Your task to perform on an android device: Empty the shopping cart on ebay. Search for "macbook pro 15 inch" on ebay, select the first entry, and add it to the cart. Image 0: 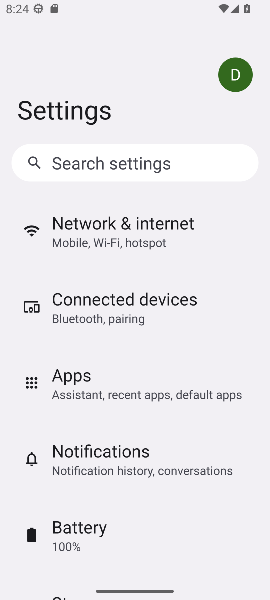
Step 0: press home button
Your task to perform on an android device: Empty the shopping cart on ebay. Search for "macbook pro 15 inch" on ebay, select the first entry, and add it to the cart. Image 1: 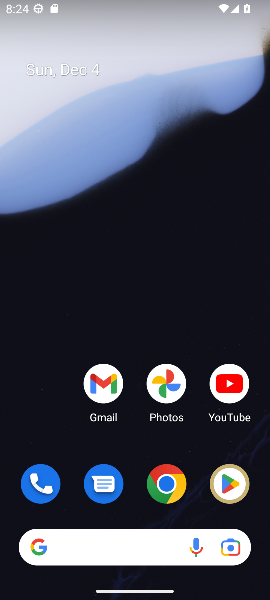
Step 1: click (169, 489)
Your task to perform on an android device: Empty the shopping cart on ebay. Search for "macbook pro 15 inch" on ebay, select the first entry, and add it to the cart. Image 2: 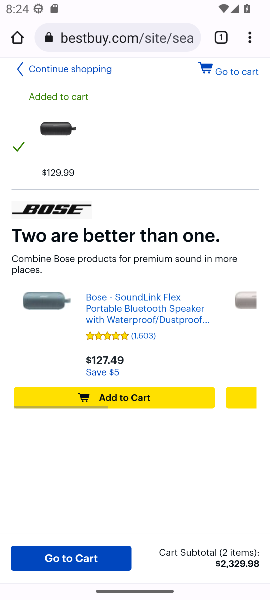
Step 2: click (111, 40)
Your task to perform on an android device: Empty the shopping cart on ebay. Search for "macbook pro 15 inch" on ebay, select the first entry, and add it to the cart. Image 3: 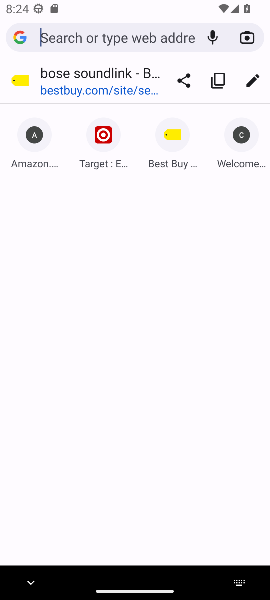
Step 3: type "ebay.com"
Your task to perform on an android device: Empty the shopping cart on ebay. Search for "macbook pro 15 inch" on ebay, select the first entry, and add it to the cart. Image 4: 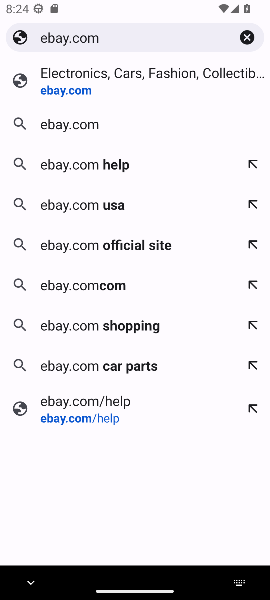
Step 4: click (66, 90)
Your task to perform on an android device: Empty the shopping cart on ebay. Search for "macbook pro 15 inch" on ebay, select the first entry, and add it to the cart. Image 5: 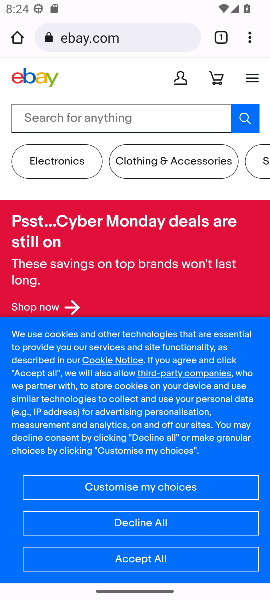
Step 5: click (219, 79)
Your task to perform on an android device: Empty the shopping cart on ebay. Search for "macbook pro 15 inch" on ebay, select the first entry, and add it to the cart. Image 6: 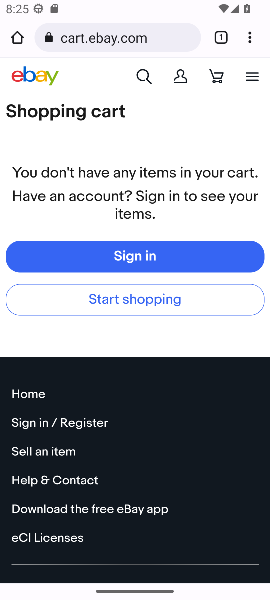
Step 6: click (144, 74)
Your task to perform on an android device: Empty the shopping cart on ebay. Search for "macbook pro 15 inch" on ebay, select the first entry, and add it to the cart. Image 7: 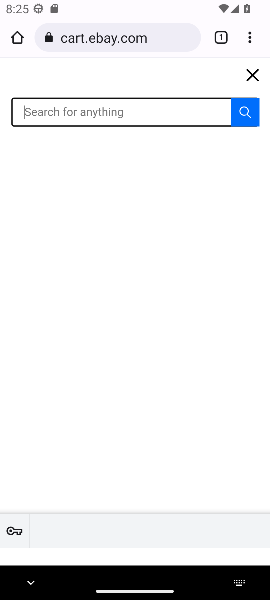
Step 7: type "macbook pro 15 inch"
Your task to perform on an android device: Empty the shopping cart on ebay. Search for "macbook pro 15 inch" on ebay, select the first entry, and add it to the cart. Image 8: 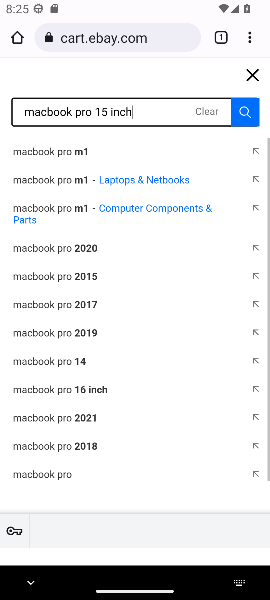
Step 8: click (238, 111)
Your task to perform on an android device: Empty the shopping cart on ebay. Search for "macbook pro 15 inch" on ebay, select the first entry, and add it to the cart. Image 9: 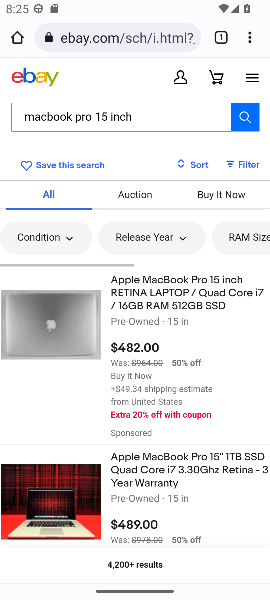
Step 9: click (158, 310)
Your task to perform on an android device: Empty the shopping cart on ebay. Search for "macbook pro 15 inch" on ebay, select the first entry, and add it to the cart. Image 10: 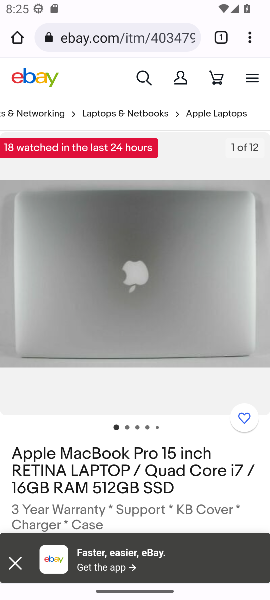
Step 10: drag from (189, 424) to (177, 151)
Your task to perform on an android device: Empty the shopping cart on ebay. Search for "macbook pro 15 inch" on ebay, select the first entry, and add it to the cart. Image 11: 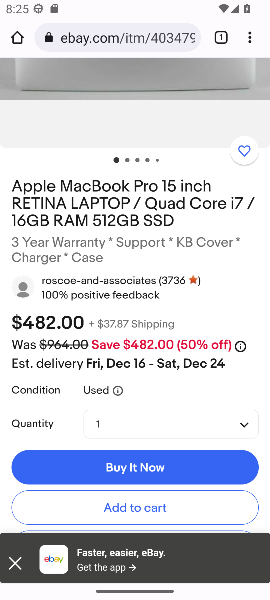
Step 11: drag from (166, 407) to (177, 226)
Your task to perform on an android device: Empty the shopping cart on ebay. Search for "macbook pro 15 inch" on ebay, select the first entry, and add it to the cart. Image 12: 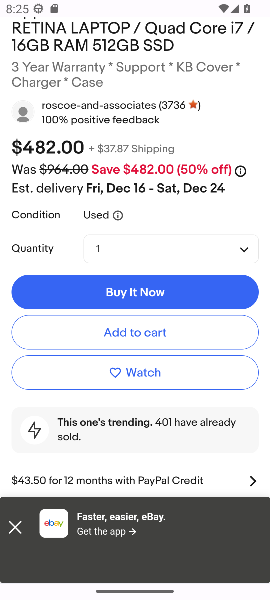
Step 12: click (134, 328)
Your task to perform on an android device: Empty the shopping cart on ebay. Search for "macbook pro 15 inch" on ebay, select the first entry, and add it to the cart. Image 13: 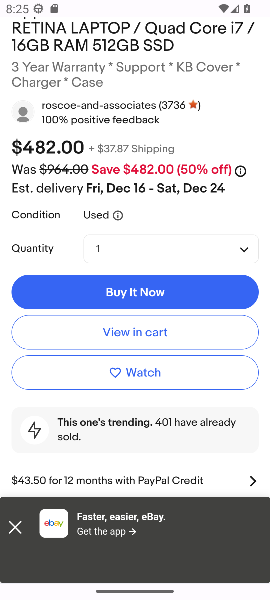
Step 13: task complete